Your task to perform on an android device: Open Android settings Image 0: 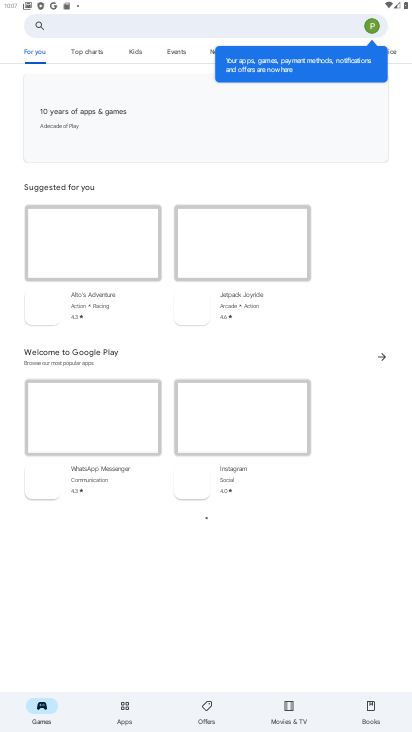
Step 0: press home button
Your task to perform on an android device: Open Android settings Image 1: 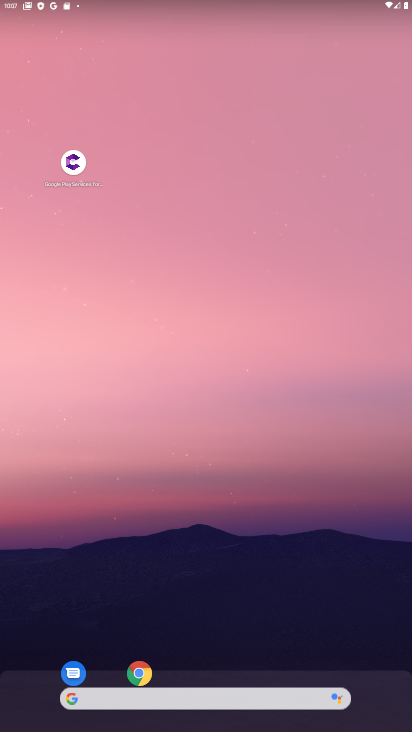
Step 1: drag from (238, 624) to (218, 30)
Your task to perform on an android device: Open Android settings Image 2: 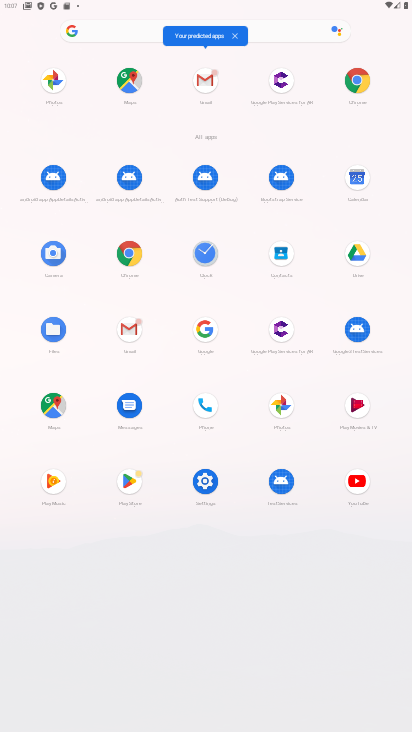
Step 2: click (209, 478)
Your task to perform on an android device: Open Android settings Image 3: 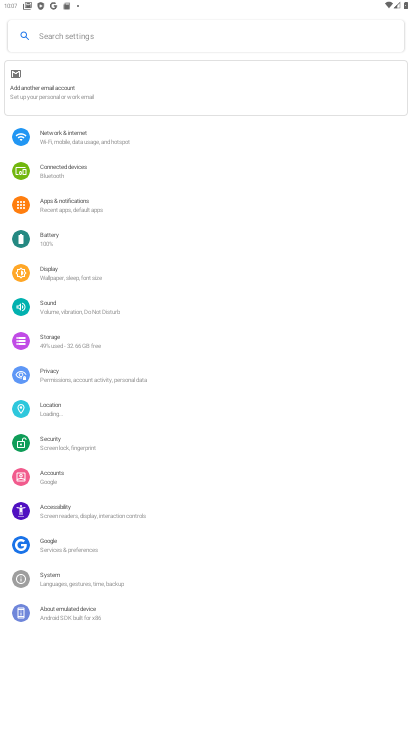
Step 3: click (105, 586)
Your task to perform on an android device: Open Android settings Image 4: 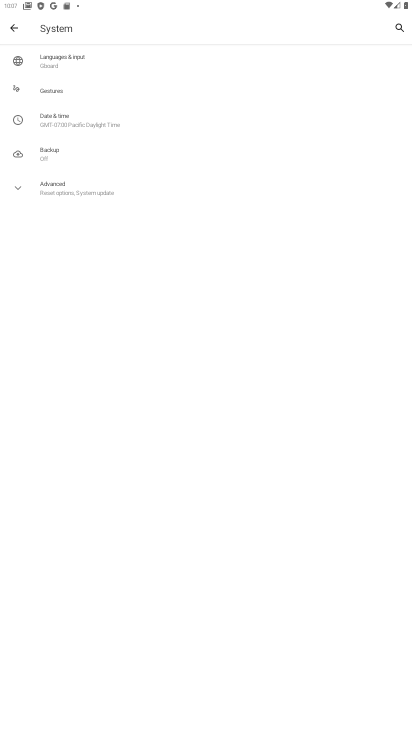
Step 4: task complete